Your task to perform on an android device: Check the weather Image 0: 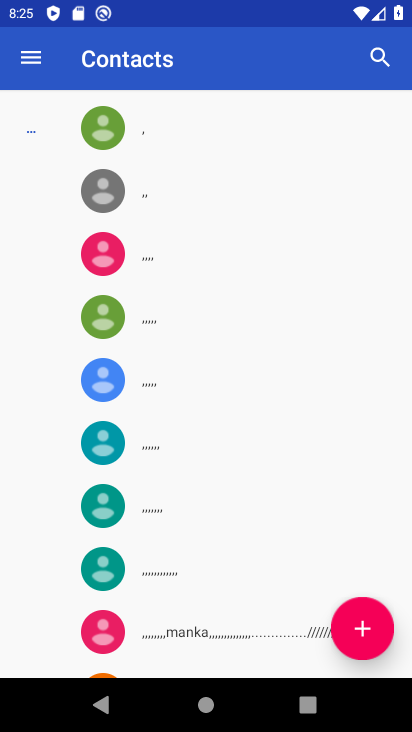
Step 0: press home button
Your task to perform on an android device: Check the weather Image 1: 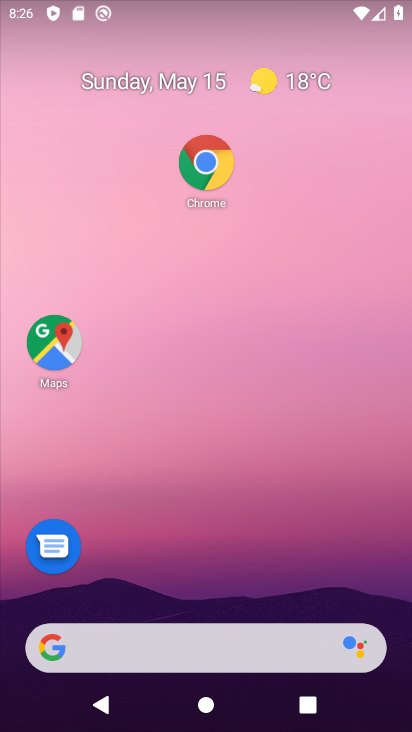
Step 1: click (203, 150)
Your task to perform on an android device: Check the weather Image 2: 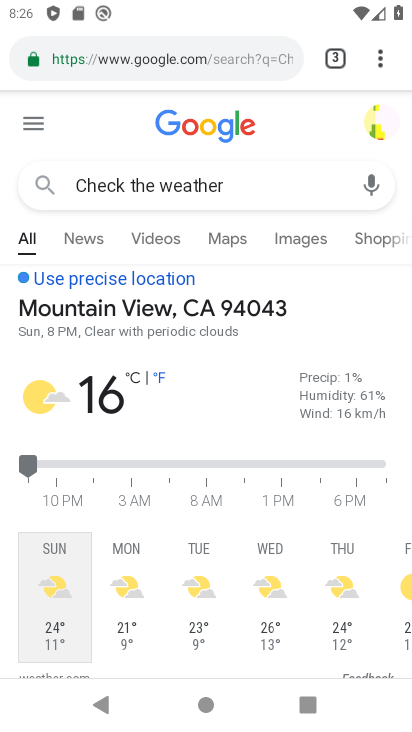
Step 2: task complete